Your task to perform on an android device: open device folders in google photos Image 0: 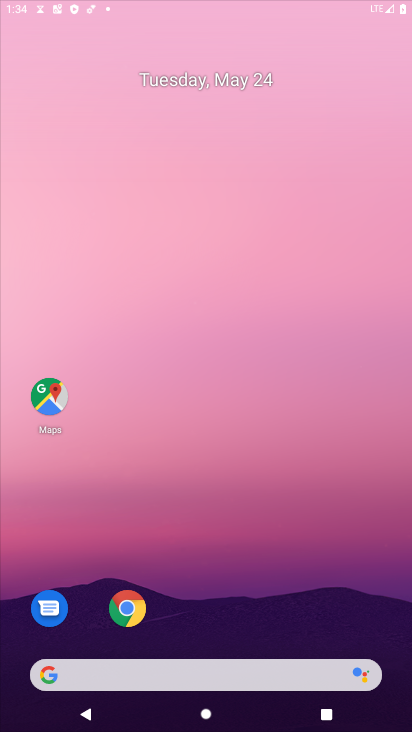
Step 0: click (205, 222)
Your task to perform on an android device: open device folders in google photos Image 1: 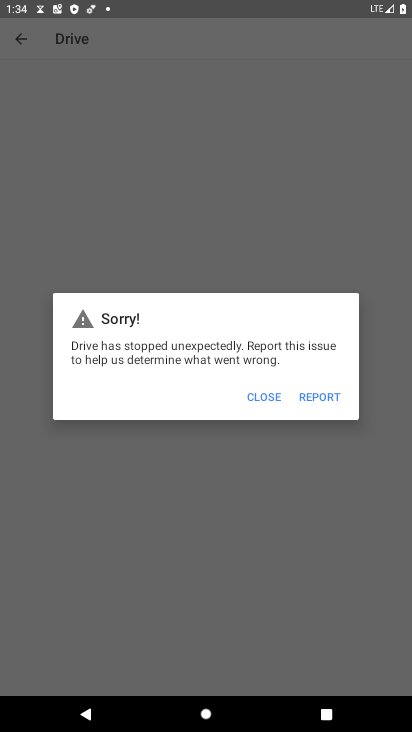
Step 1: press home button
Your task to perform on an android device: open device folders in google photos Image 2: 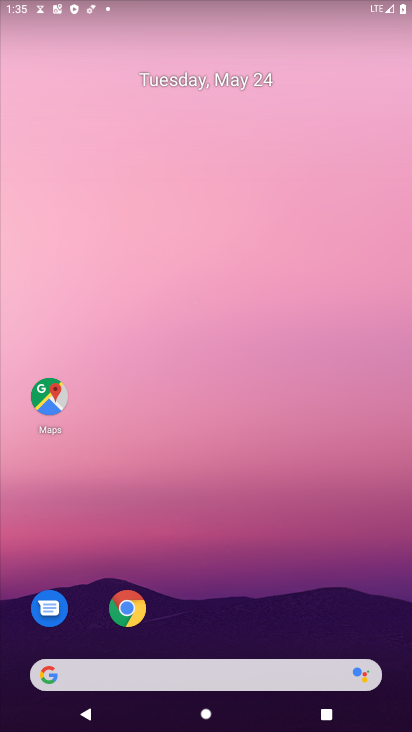
Step 2: drag from (260, 616) to (253, 172)
Your task to perform on an android device: open device folders in google photos Image 3: 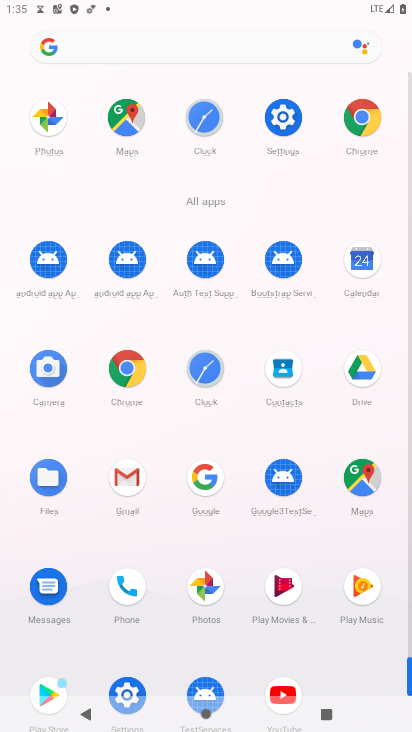
Step 3: click (211, 582)
Your task to perform on an android device: open device folders in google photos Image 4: 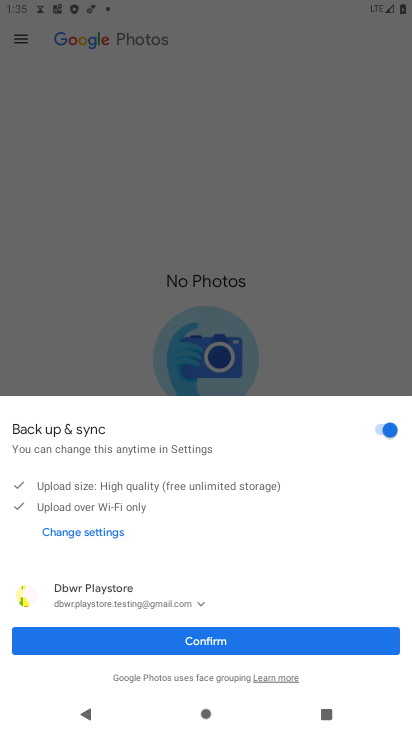
Step 4: click (221, 652)
Your task to perform on an android device: open device folders in google photos Image 5: 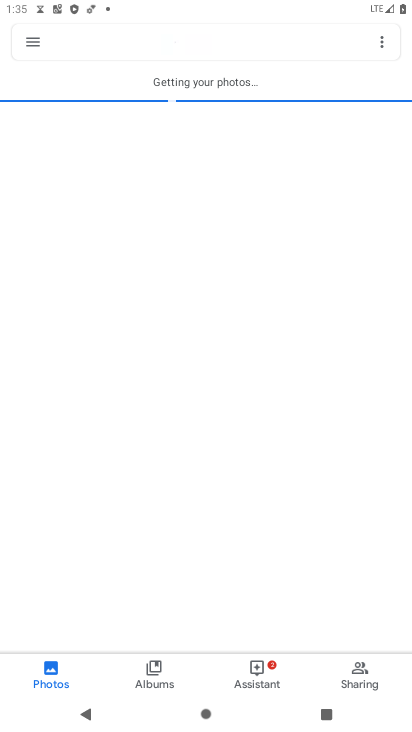
Step 5: click (28, 38)
Your task to perform on an android device: open device folders in google photos Image 6: 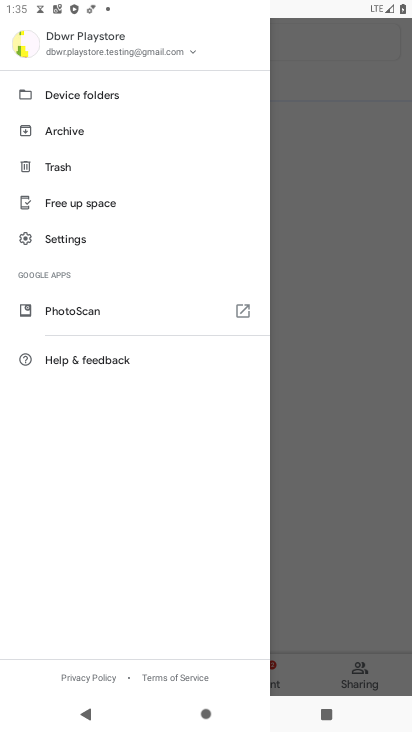
Step 6: click (75, 98)
Your task to perform on an android device: open device folders in google photos Image 7: 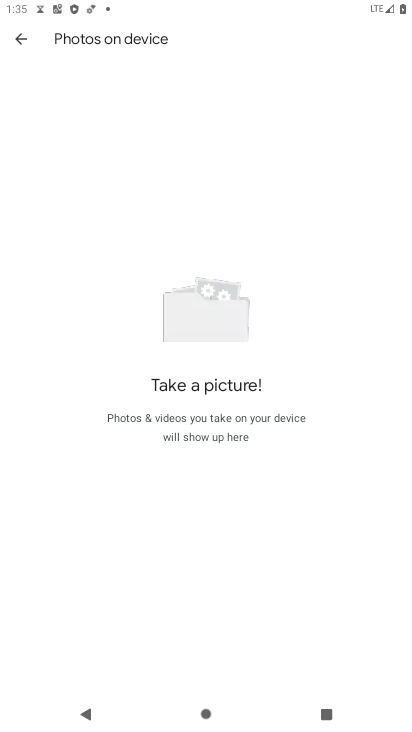
Step 7: task complete